Your task to perform on an android device: Empty the shopping cart on bestbuy. Add logitech g502 to the cart on bestbuy Image 0: 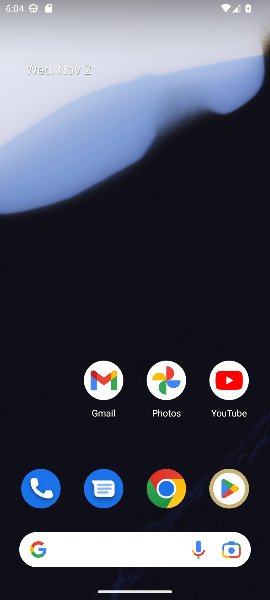
Step 0: click (246, 250)
Your task to perform on an android device: Empty the shopping cart on bestbuy. Add logitech g502 to the cart on bestbuy Image 1: 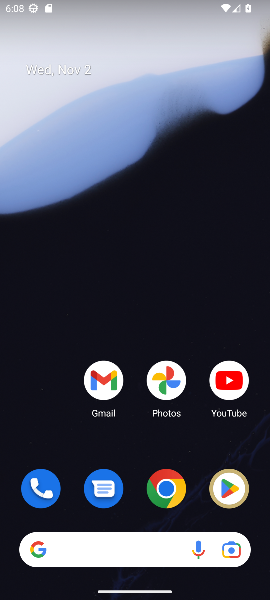
Step 1: task complete